Your task to perform on an android device: turn on sleep mode Image 0: 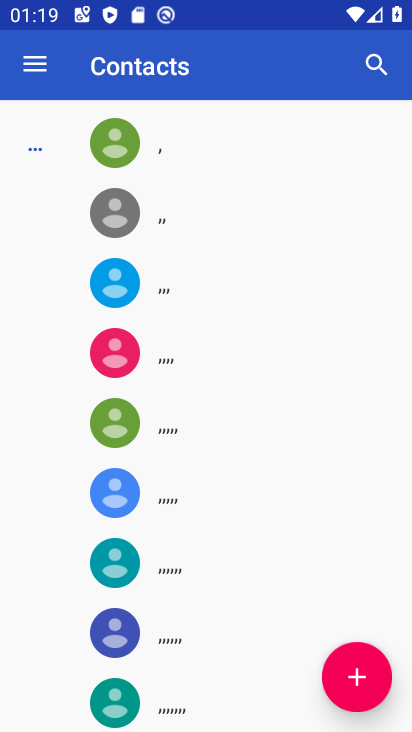
Step 0: press home button
Your task to perform on an android device: turn on sleep mode Image 1: 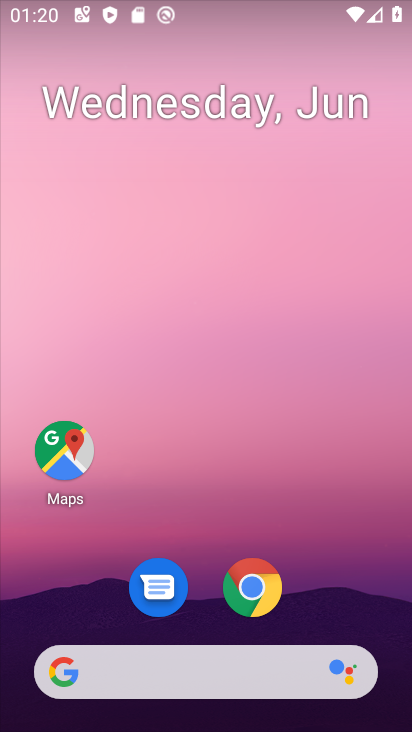
Step 1: drag from (348, 542) to (218, 182)
Your task to perform on an android device: turn on sleep mode Image 2: 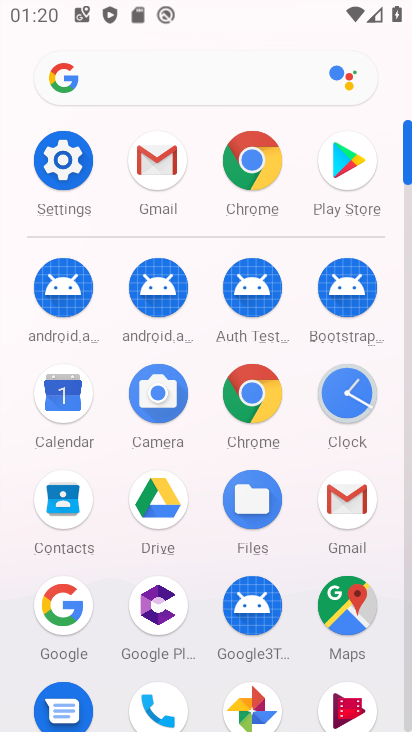
Step 2: click (65, 157)
Your task to perform on an android device: turn on sleep mode Image 3: 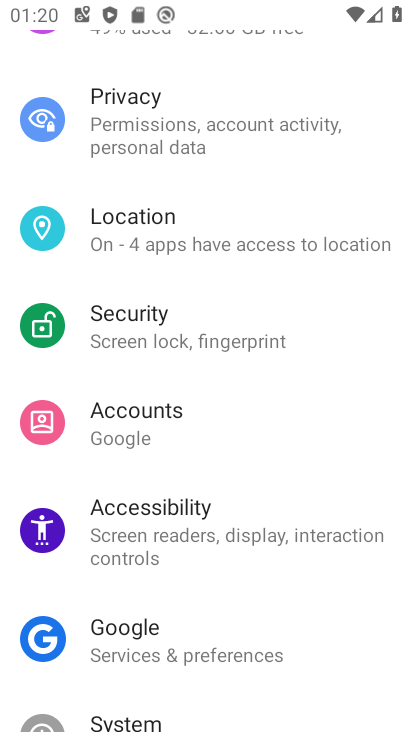
Step 3: drag from (202, 293) to (213, 589)
Your task to perform on an android device: turn on sleep mode Image 4: 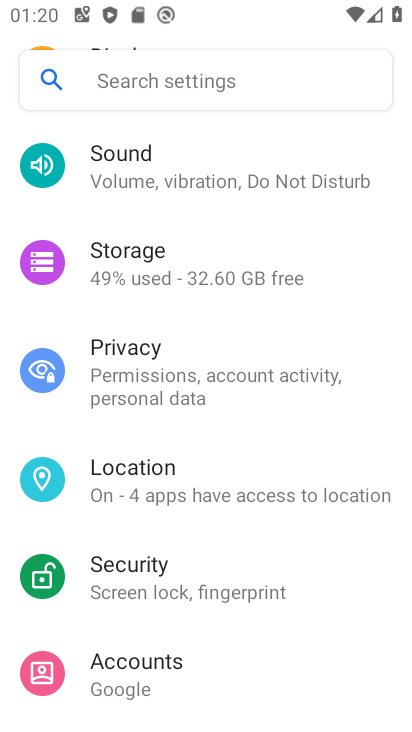
Step 4: drag from (190, 290) to (190, 494)
Your task to perform on an android device: turn on sleep mode Image 5: 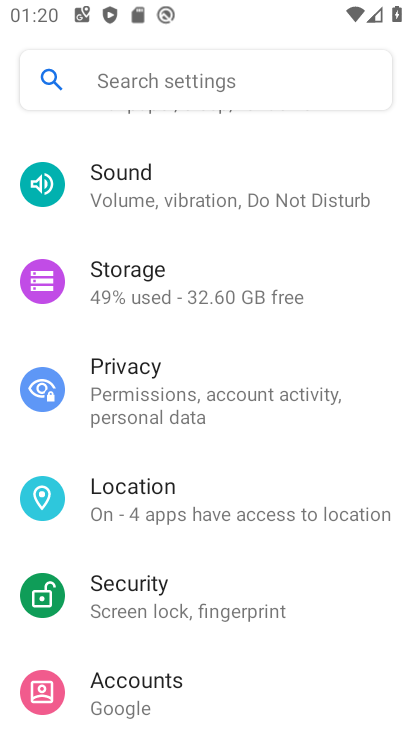
Step 5: drag from (235, 203) to (246, 572)
Your task to perform on an android device: turn on sleep mode Image 6: 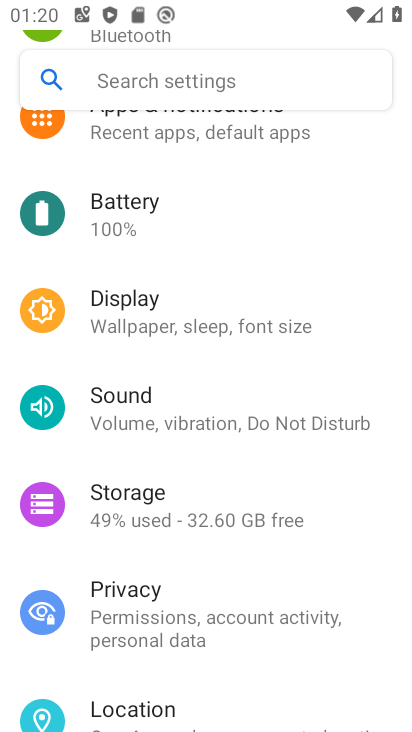
Step 6: click (251, 320)
Your task to perform on an android device: turn on sleep mode Image 7: 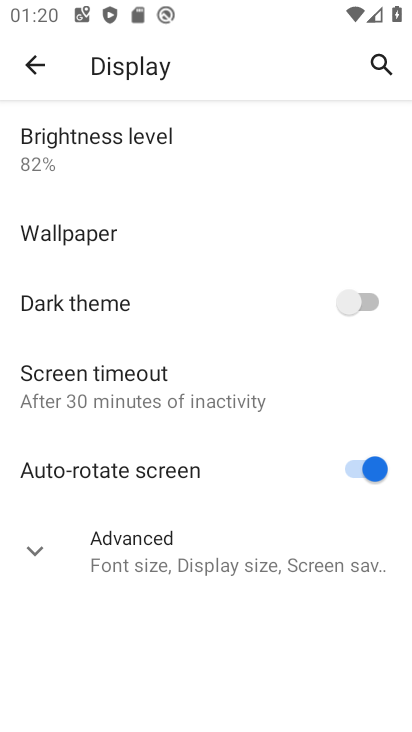
Step 7: task complete